Your task to perform on an android device: open app "Firefox Browser" Image 0: 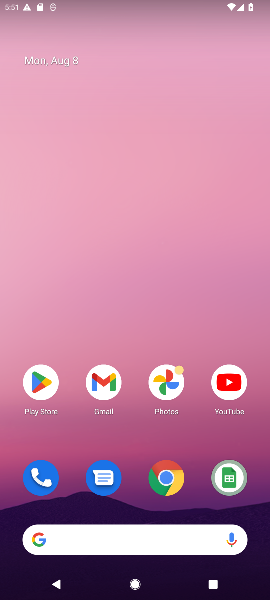
Step 0: drag from (115, 335) to (128, 235)
Your task to perform on an android device: open app "Firefox Browser" Image 1: 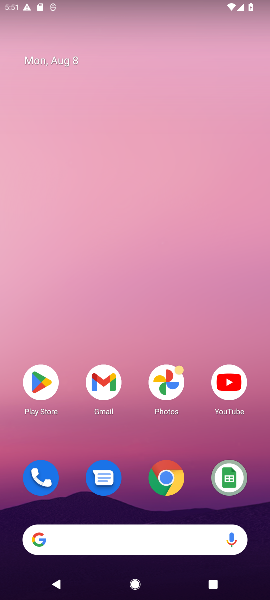
Step 1: click (40, 384)
Your task to perform on an android device: open app "Firefox Browser" Image 2: 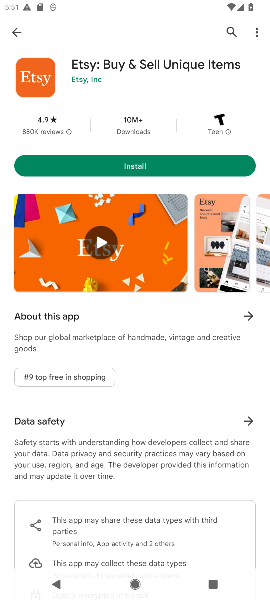
Step 2: click (233, 29)
Your task to perform on an android device: open app "Firefox Browser" Image 3: 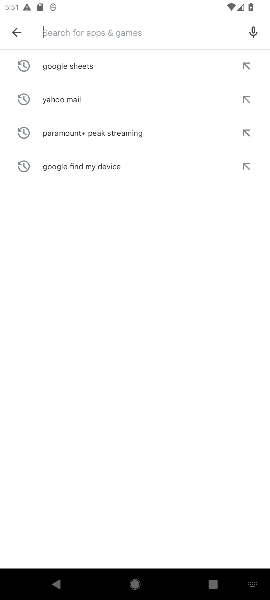
Step 3: type "Firefox browser"
Your task to perform on an android device: open app "Firefox Browser" Image 4: 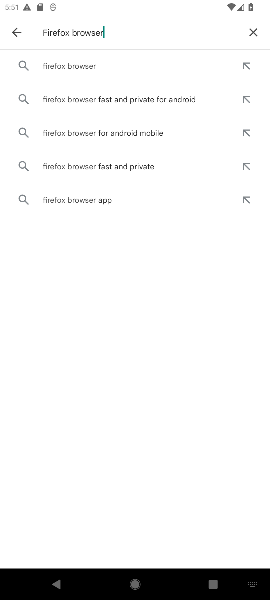
Step 4: click (94, 61)
Your task to perform on an android device: open app "Firefox Browser" Image 5: 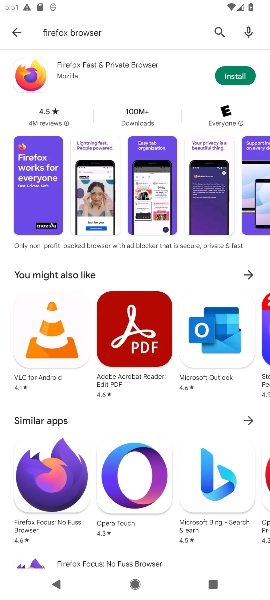
Step 5: task complete